Your task to perform on an android device: toggle airplane mode Image 0: 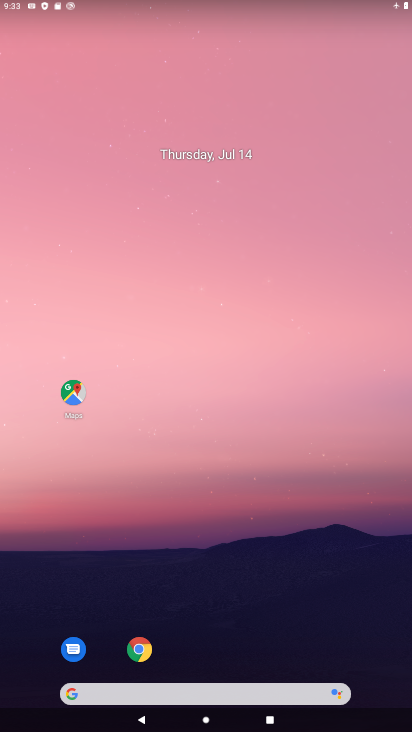
Step 0: drag from (170, 532) to (288, 34)
Your task to perform on an android device: toggle airplane mode Image 1: 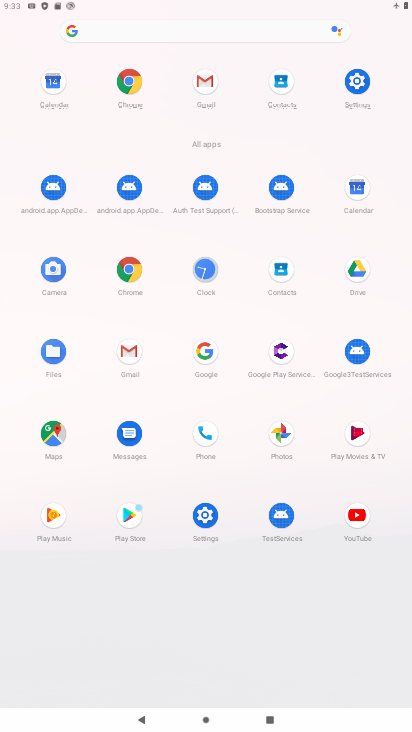
Step 1: click (363, 87)
Your task to perform on an android device: toggle airplane mode Image 2: 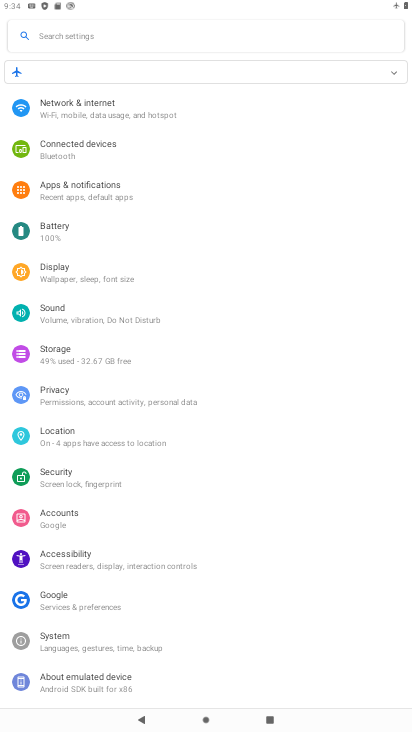
Step 2: click (98, 124)
Your task to perform on an android device: toggle airplane mode Image 3: 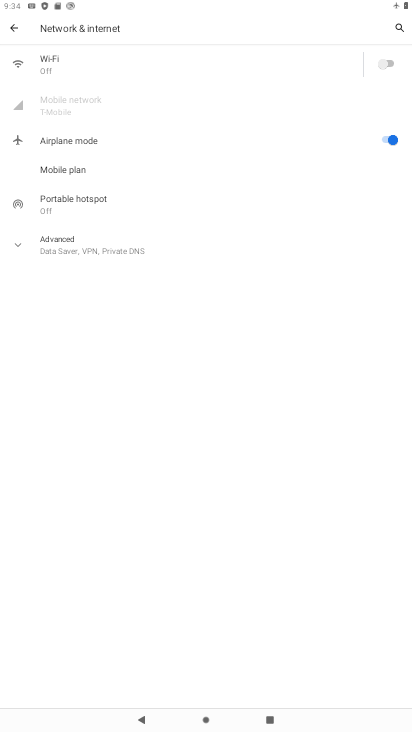
Step 3: click (385, 140)
Your task to perform on an android device: toggle airplane mode Image 4: 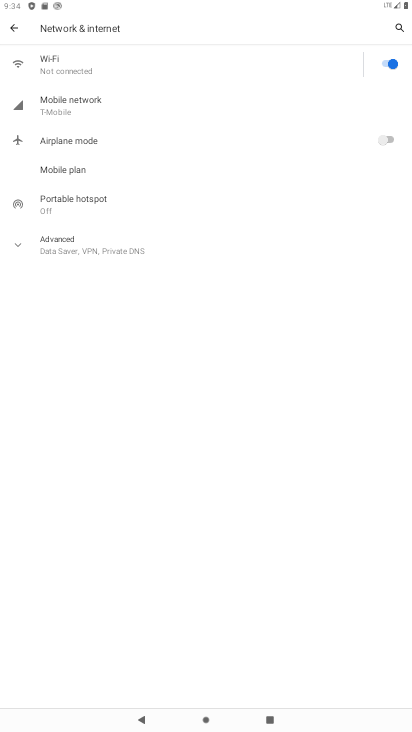
Step 4: task complete